Your task to perform on an android device: Open ESPN.com Image 0: 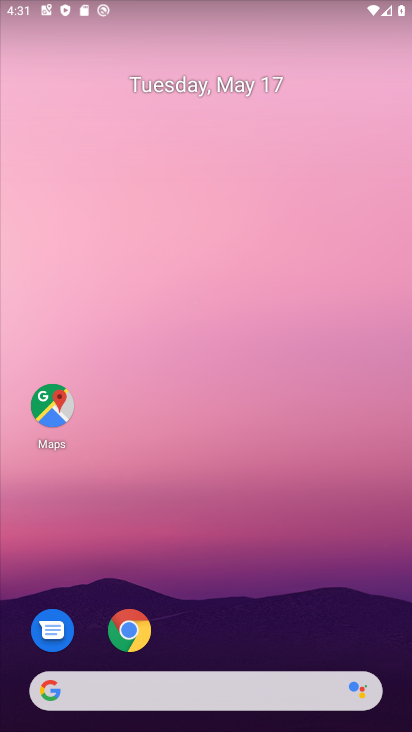
Step 0: click (126, 627)
Your task to perform on an android device: Open ESPN.com Image 1: 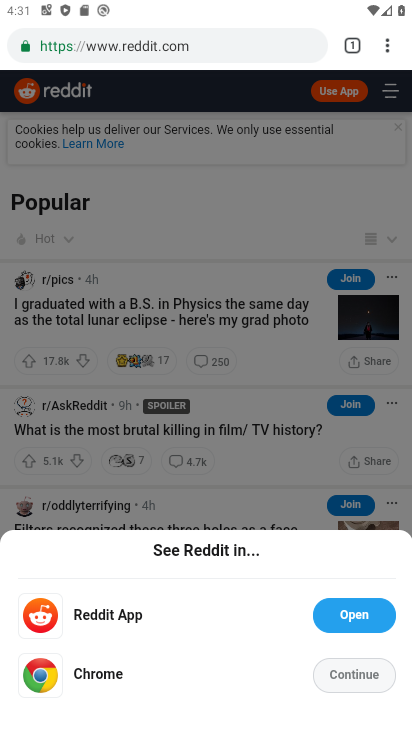
Step 1: click (185, 41)
Your task to perform on an android device: Open ESPN.com Image 2: 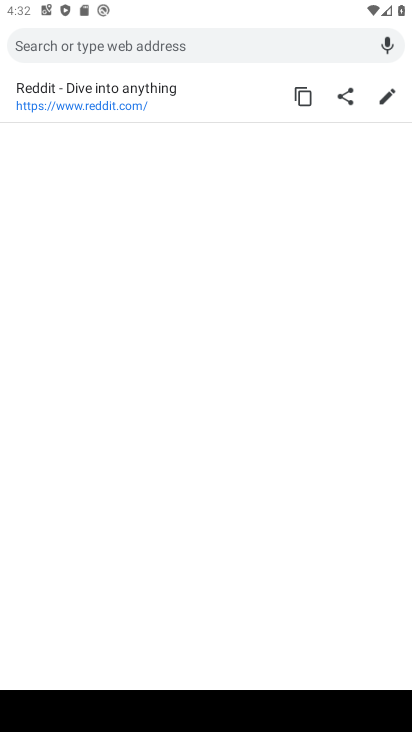
Step 2: type " ESPN.com"
Your task to perform on an android device: Open ESPN.com Image 3: 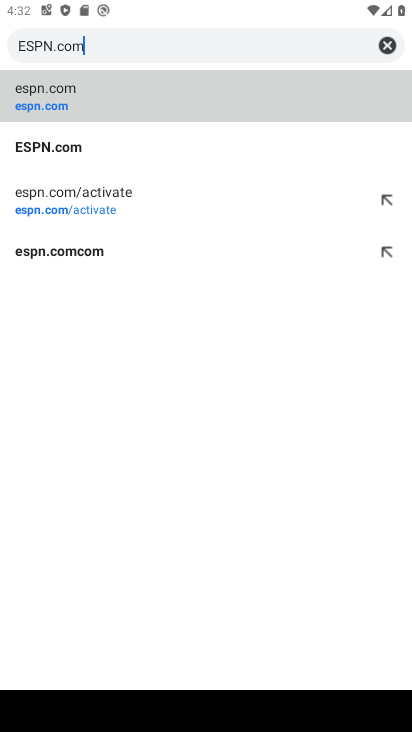
Step 3: click (42, 102)
Your task to perform on an android device: Open ESPN.com Image 4: 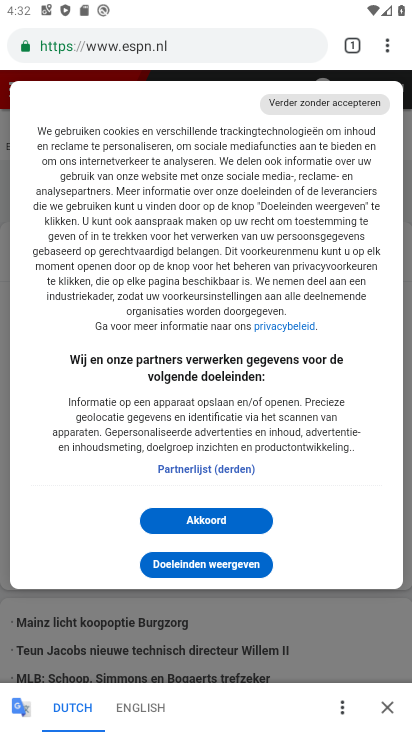
Step 4: task complete